Your task to perform on an android device: move a message to another label in the gmail app Image 0: 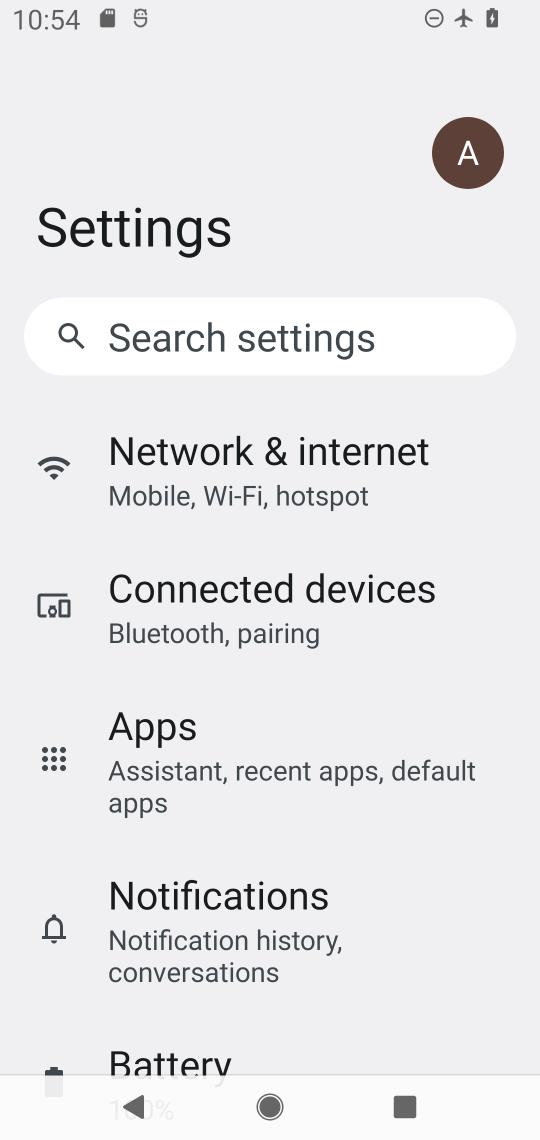
Step 0: press home button
Your task to perform on an android device: move a message to another label in the gmail app Image 1: 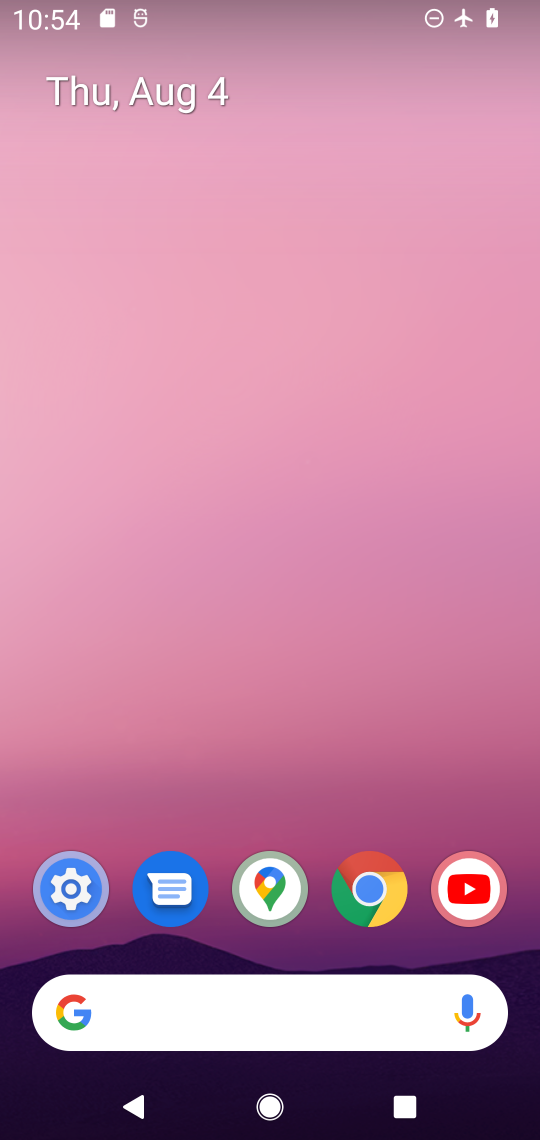
Step 1: drag from (316, 780) to (272, 83)
Your task to perform on an android device: move a message to another label in the gmail app Image 2: 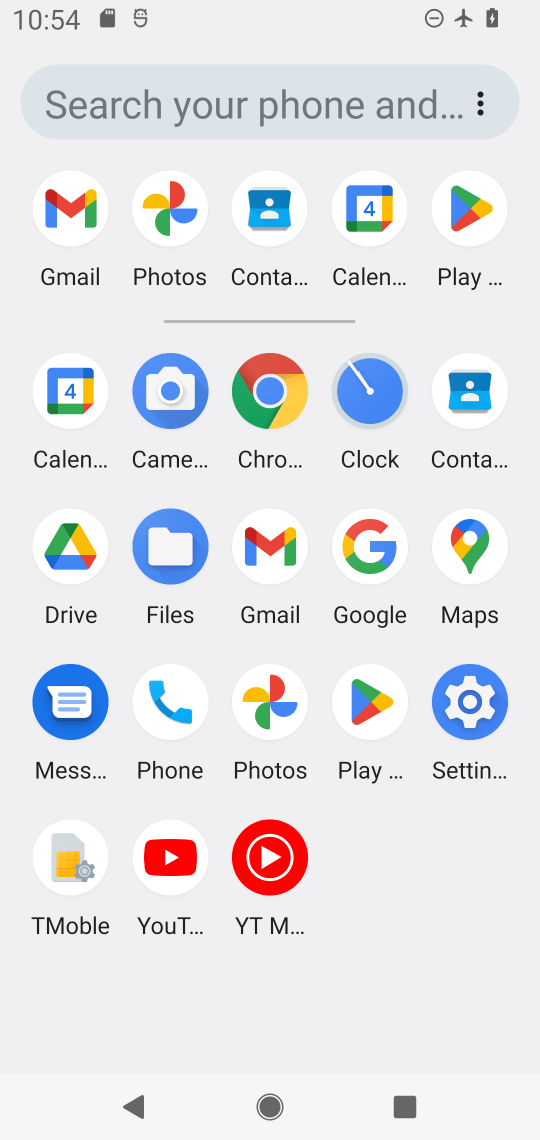
Step 2: click (269, 549)
Your task to perform on an android device: move a message to another label in the gmail app Image 3: 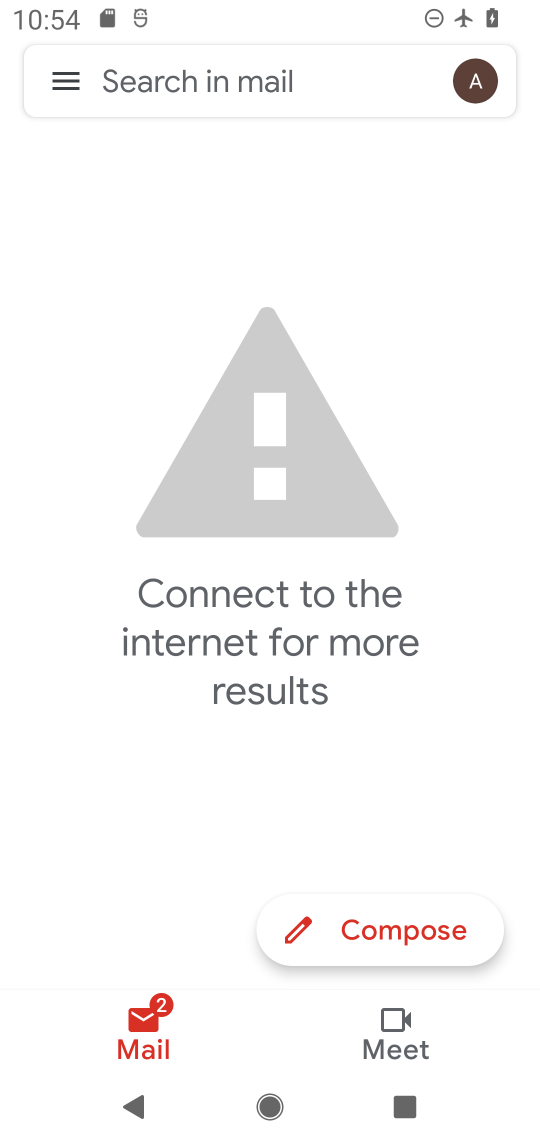
Step 3: task complete